Your task to perform on an android device: change the clock style Image 0: 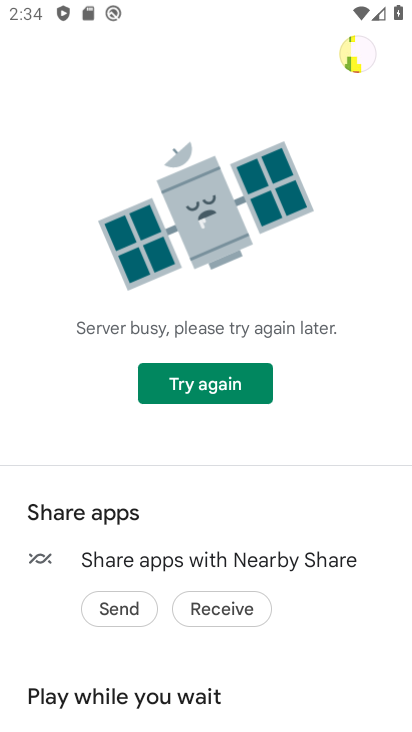
Step 0: press home button
Your task to perform on an android device: change the clock style Image 1: 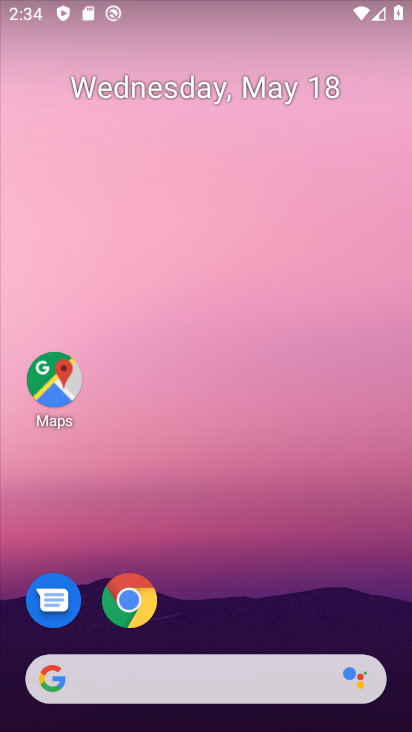
Step 1: drag from (222, 534) to (274, 217)
Your task to perform on an android device: change the clock style Image 2: 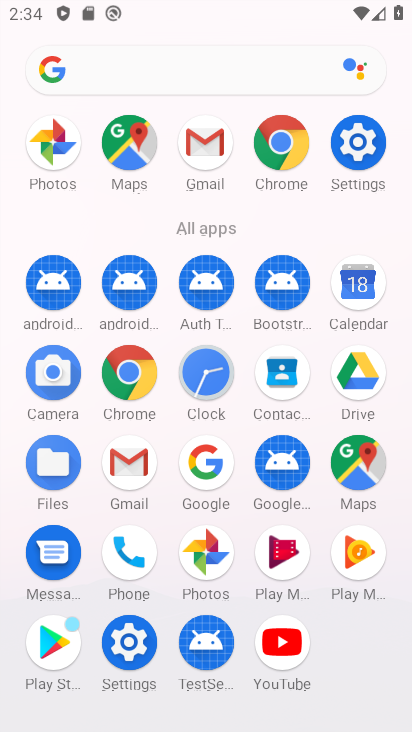
Step 2: click (223, 400)
Your task to perform on an android device: change the clock style Image 3: 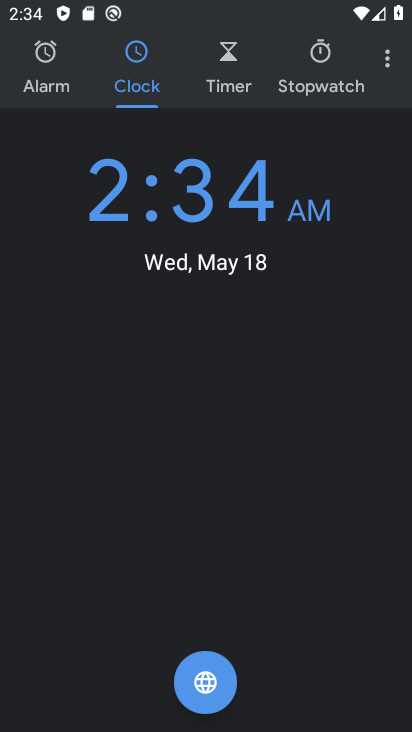
Step 3: click (223, 400)
Your task to perform on an android device: change the clock style Image 4: 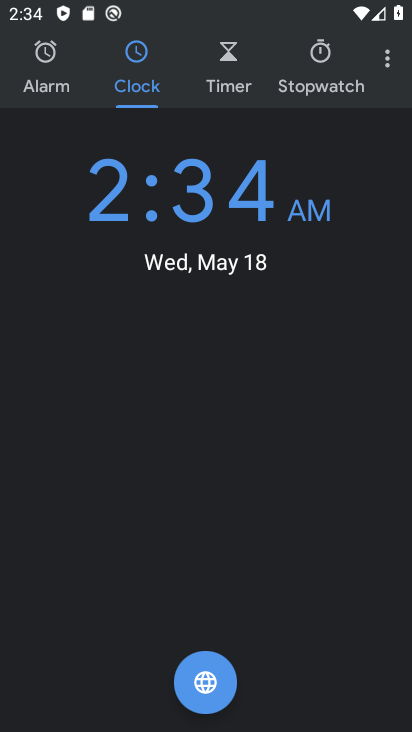
Step 4: click (386, 71)
Your task to perform on an android device: change the clock style Image 5: 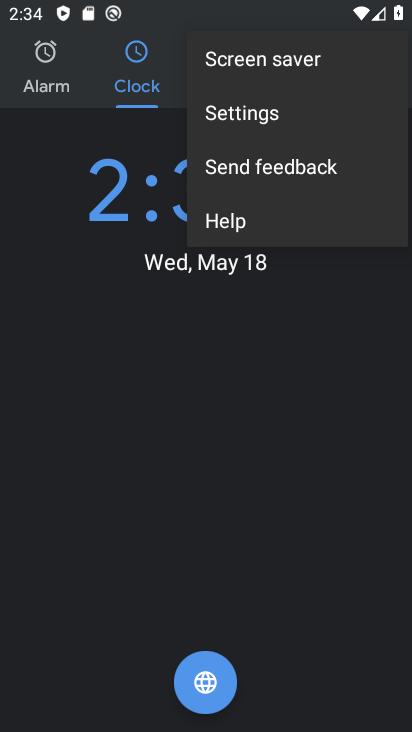
Step 5: click (308, 115)
Your task to perform on an android device: change the clock style Image 6: 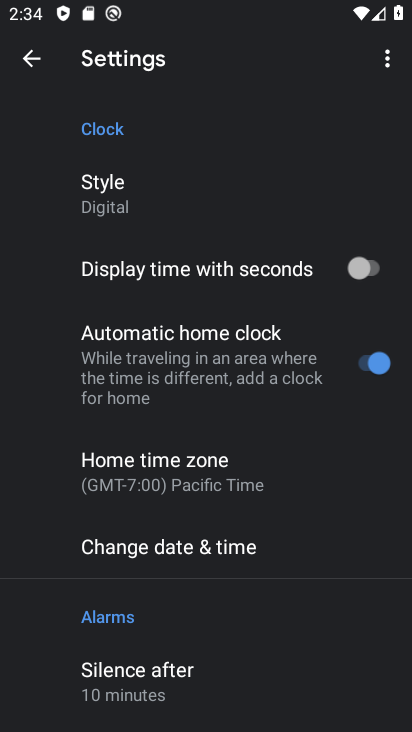
Step 6: click (202, 178)
Your task to perform on an android device: change the clock style Image 7: 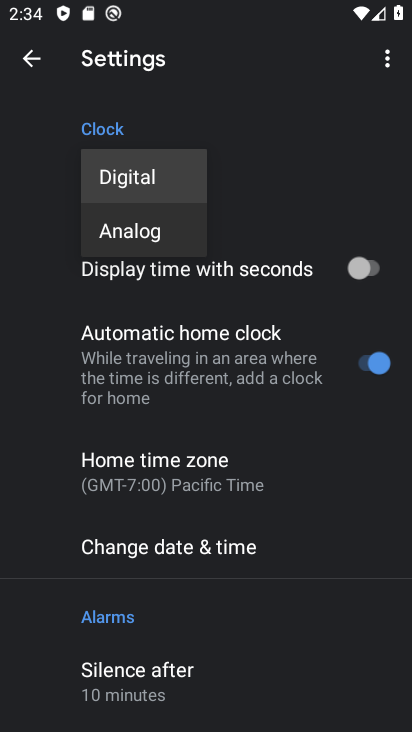
Step 7: click (174, 240)
Your task to perform on an android device: change the clock style Image 8: 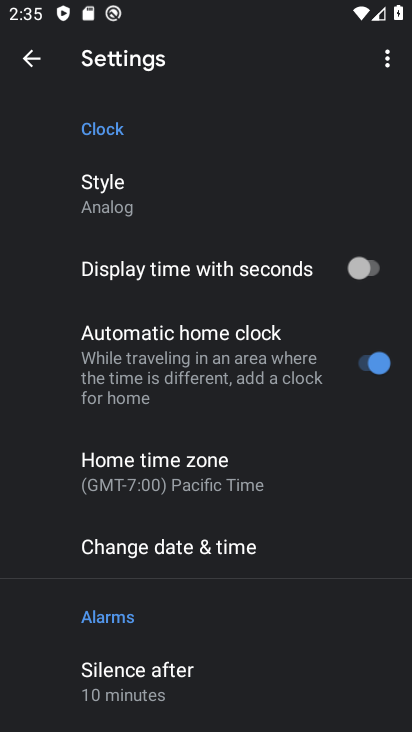
Step 8: task complete